Your task to perform on an android device: Open Google Chrome and click the shortcut for Amazon.com Image 0: 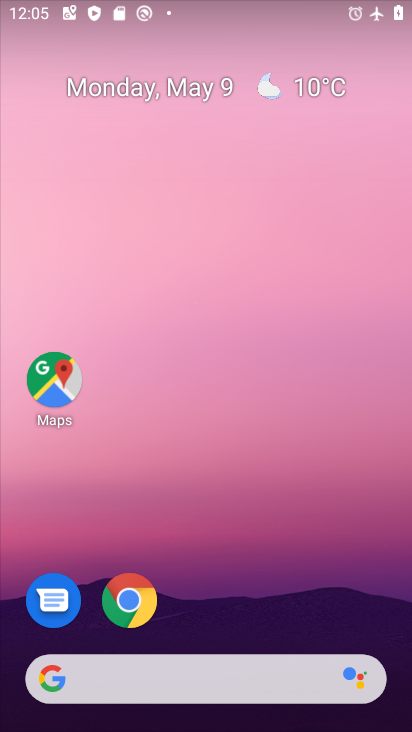
Step 0: click (121, 605)
Your task to perform on an android device: Open Google Chrome and click the shortcut for Amazon.com Image 1: 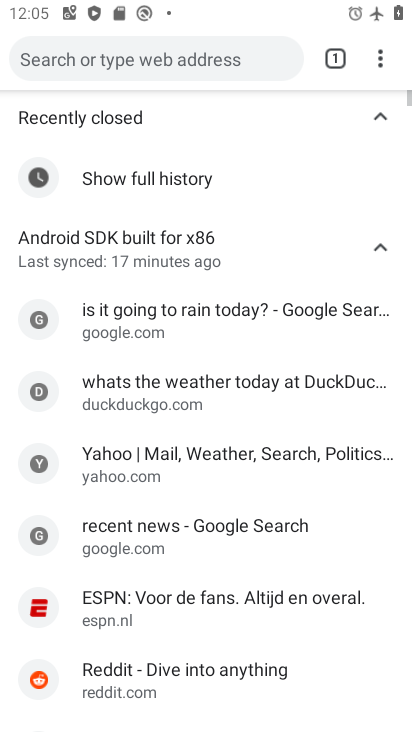
Step 1: click (78, 56)
Your task to perform on an android device: Open Google Chrome and click the shortcut for Amazon.com Image 2: 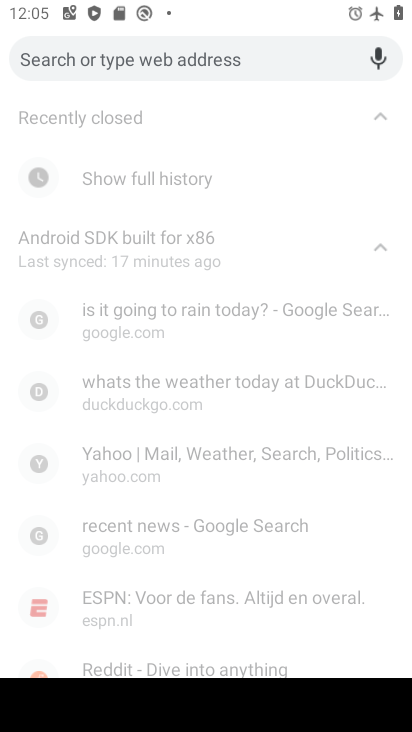
Step 2: type "amazon.com"
Your task to perform on an android device: Open Google Chrome and click the shortcut for Amazon.com Image 3: 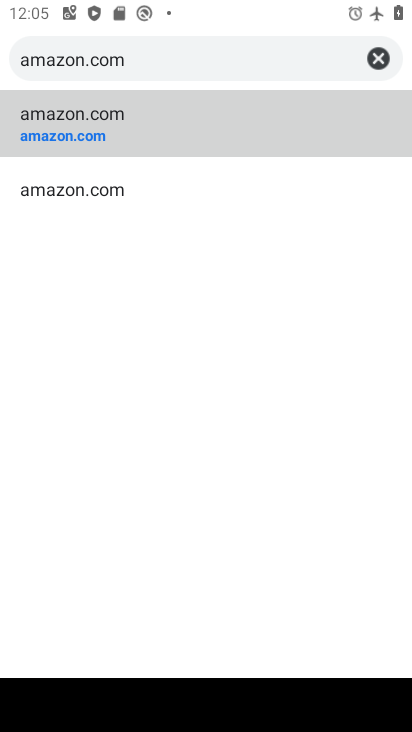
Step 3: click (89, 133)
Your task to perform on an android device: Open Google Chrome and click the shortcut for Amazon.com Image 4: 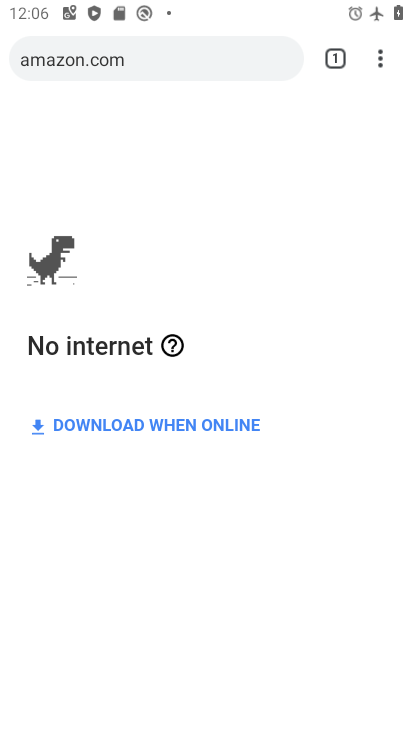
Step 4: task complete